Your task to perform on an android device: What's the weather going to be tomorrow? Image 0: 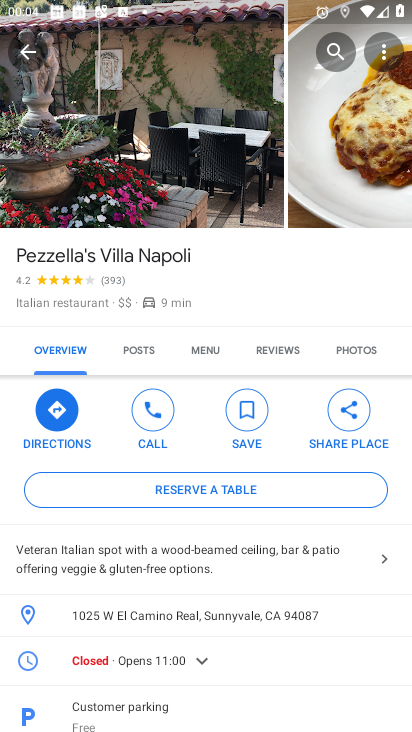
Step 0: press home button
Your task to perform on an android device: What's the weather going to be tomorrow? Image 1: 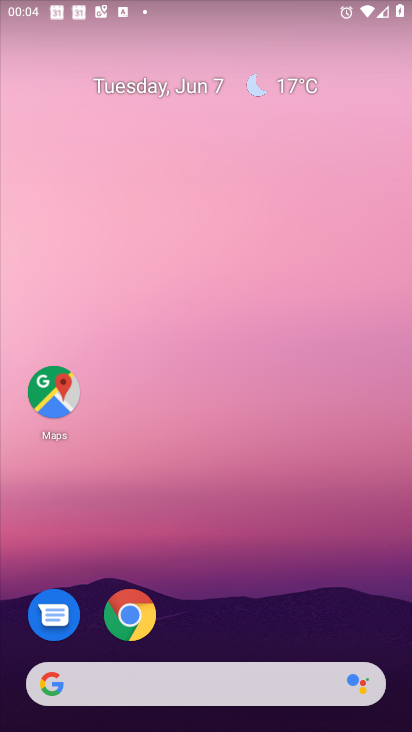
Step 1: drag from (42, 286) to (399, 226)
Your task to perform on an android device: What's the weather going to be tomorrow? Image 2: 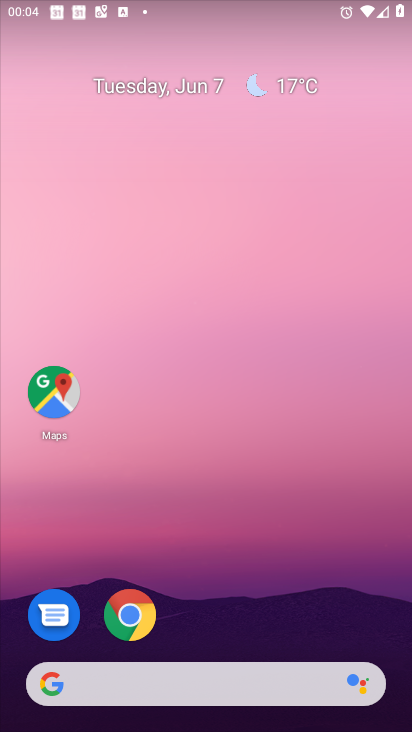
Step 2: drag from (9, 281) to (409, 240)
Your task to perform on an android device: What's the weather going to be tomorrow? Image 3: 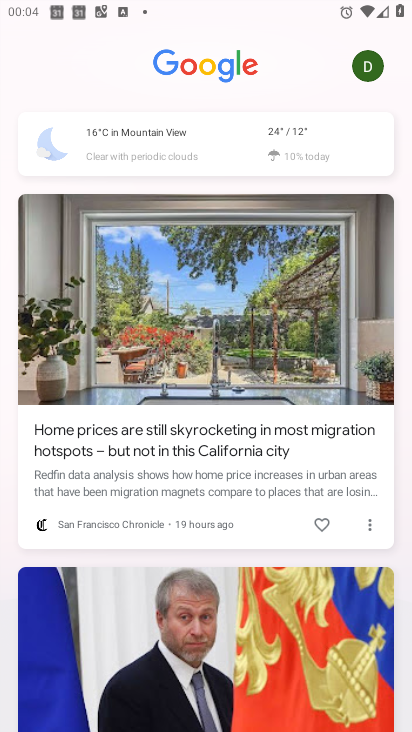
Step 3: click (275, 127)
Your task to perform on an android device: What's the weather going to be tomorrow? Image 4: 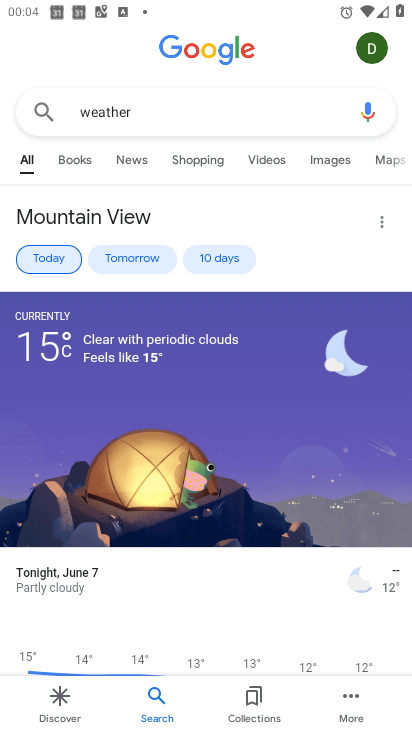
Step 4: click (136, 259)
Your task to perform on an android device: What's the weather going to be tomorrow? Image 5: 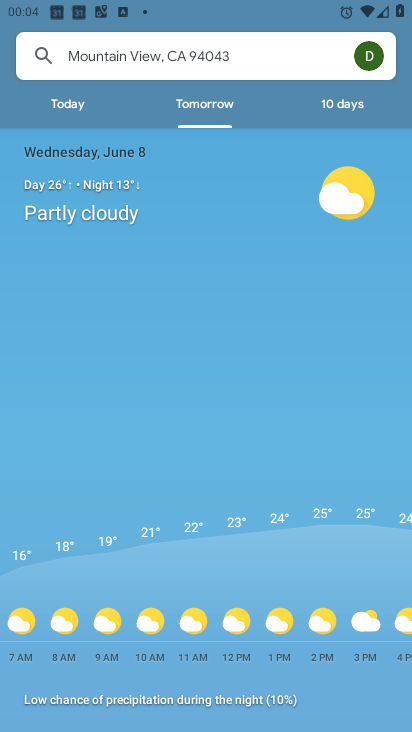
Step 5: task complete